Your task to perform on an android device: Go to Google Image 0: 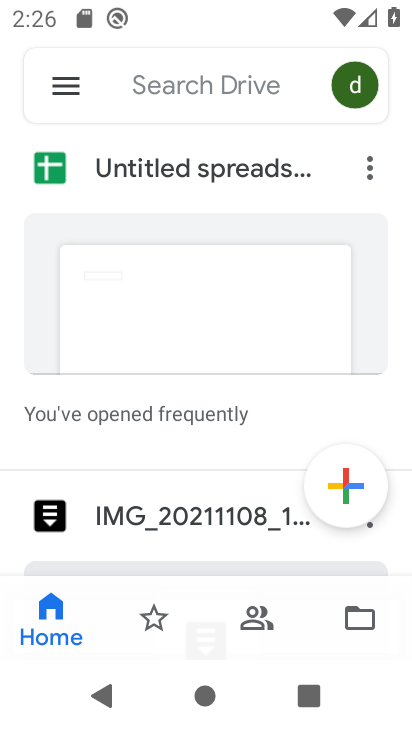
Step 0: press home button
Your task to perform on an android device: Go to Google Image 1: 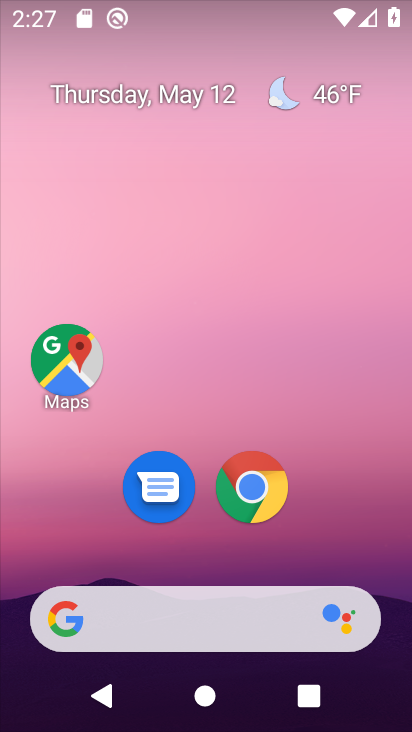
Step 1: drag from (215, 554) to (349, 71)
Your task to perform on an android device: Go to Google Image 2: 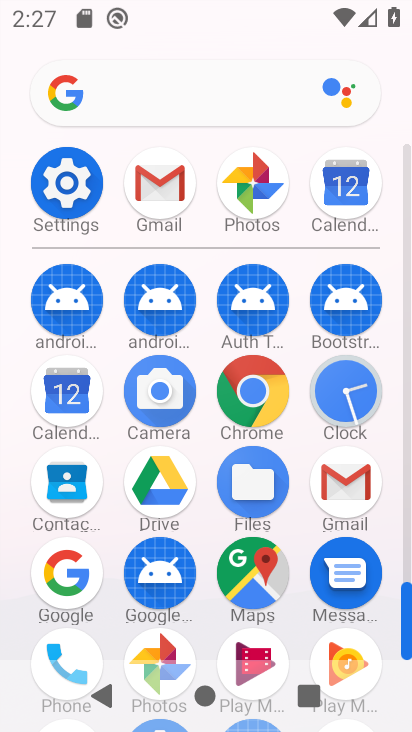
Step 2: click (52, 561)
Your task to perform on an android device: Go to Google Image 3: 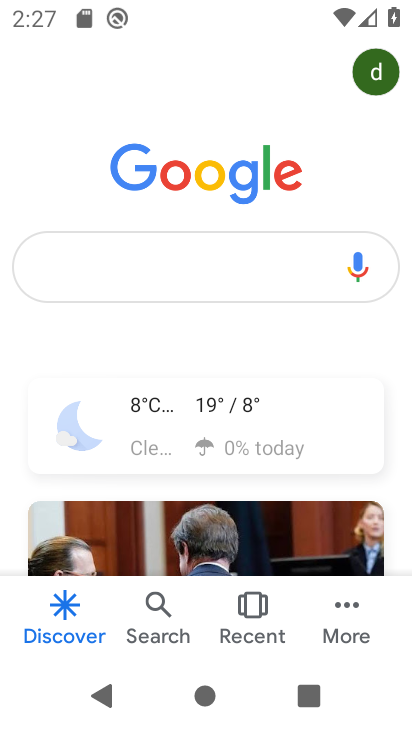
Step 3: task complete